Your task to perform on an android device: manage bookmarks in the chrome app Image 0: 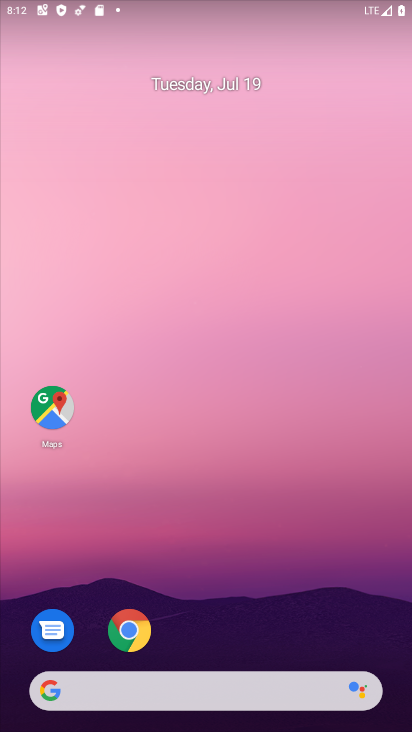
Step 0: drag from (225, 681) to (280, 240)
Your task to perform on an android device: manage bookmarks in the chrome app Image 1: 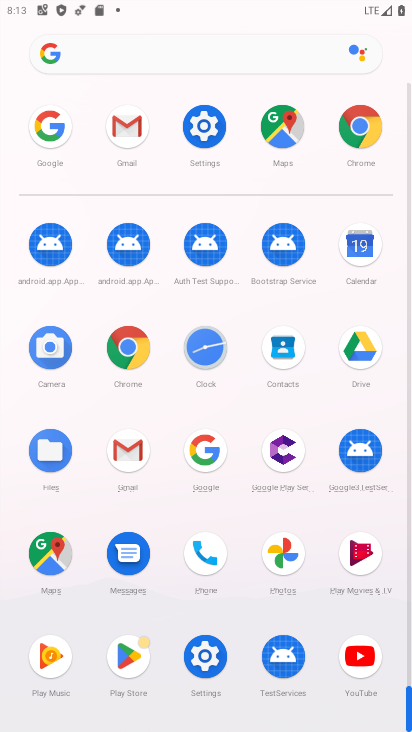
Step 1: click (364, 134)
Your task to perform on an android device: manage bookmarks in the chrome app Image 2: 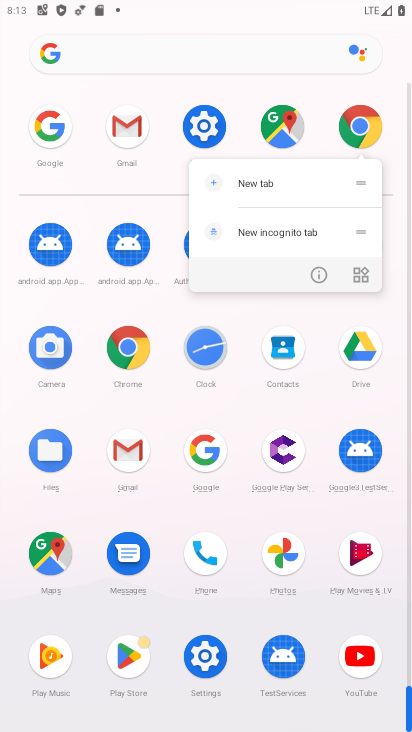
Step 2: click (136, 354)
Your task to perform on an android device: manage bookmarks in the chrome app Image 3: 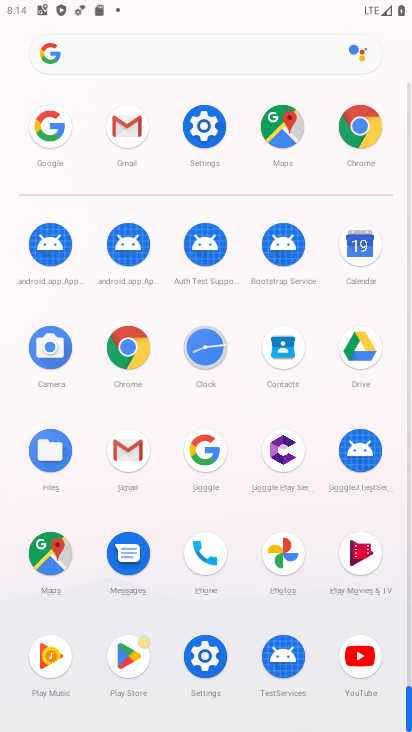
Step 3: click (369, 136)
Your task to perform on an android device: manage bookmarks in the chrome app Image 4: 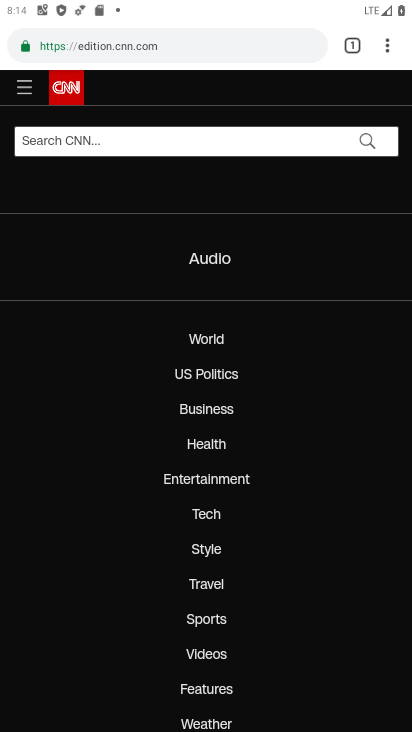
Step 4: click (386, 45)
Your task to perform on an android device: manage bookmarks in the chrome app Image 5: 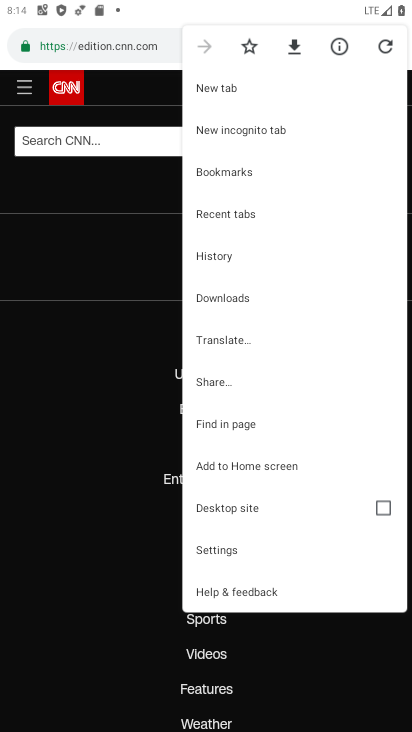
Step 5: click (211, 180)
Your task to perform on an android device: manage bookmarks in the chrome app Image 6: 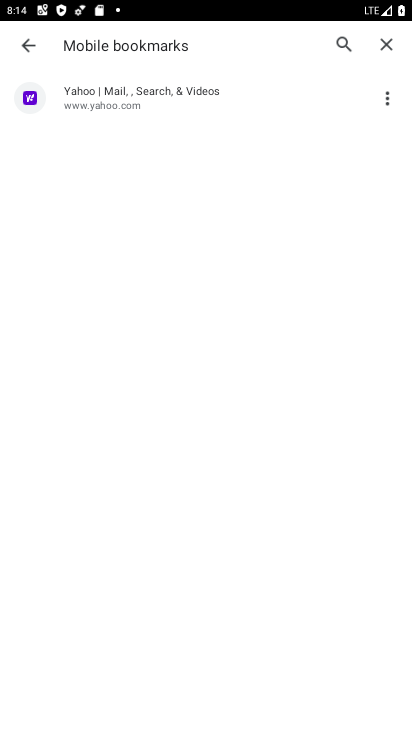
Step 6: task complete